Your task to perform on an android device: toggle translation in the chrome app Image 0: 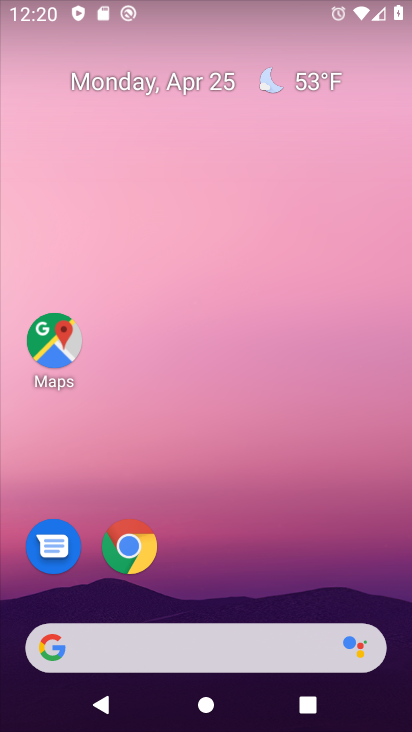
Step 0: click (140, 553)
Your task to perform on an android device: toggle translation in the chrome app Image 1: 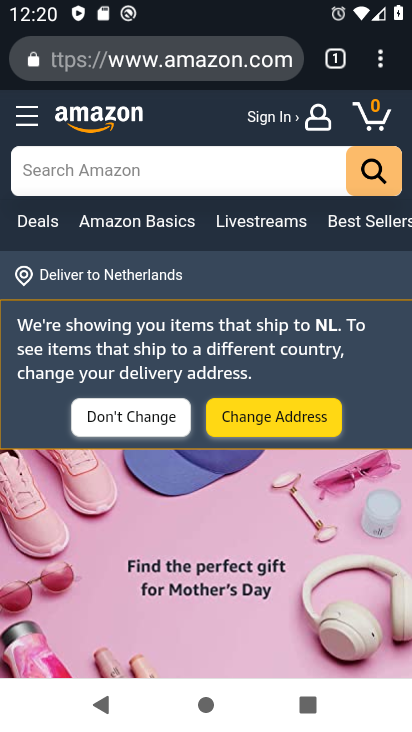
Step 1: click (378, 58)
Your task to perform on an android device: toggle translation in the chrome app Image 2: 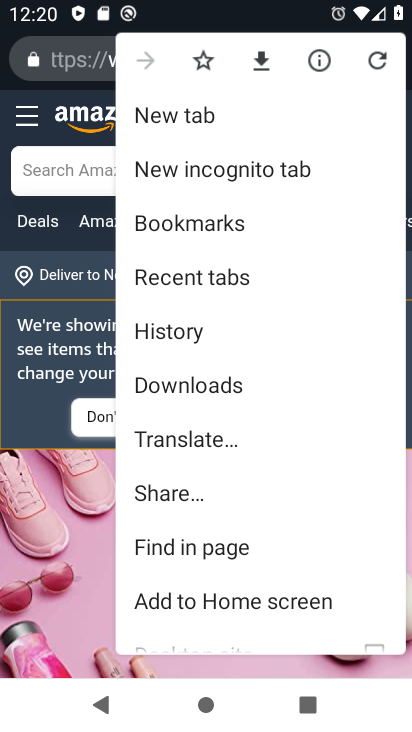
Step 2: drag from (240, 490) to (257, 326)
Your task to perform on an android device: toggle translation in the chrome app Image 3: 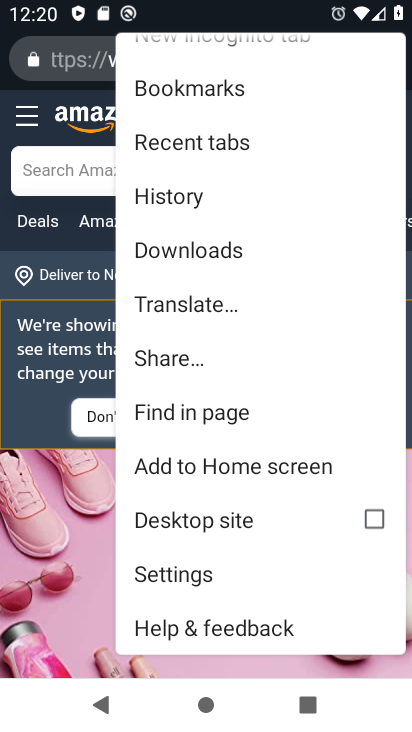
Step 3: click (187, 564)
Your task to perform on an android device: toggle translation in the chrome app Image 4: 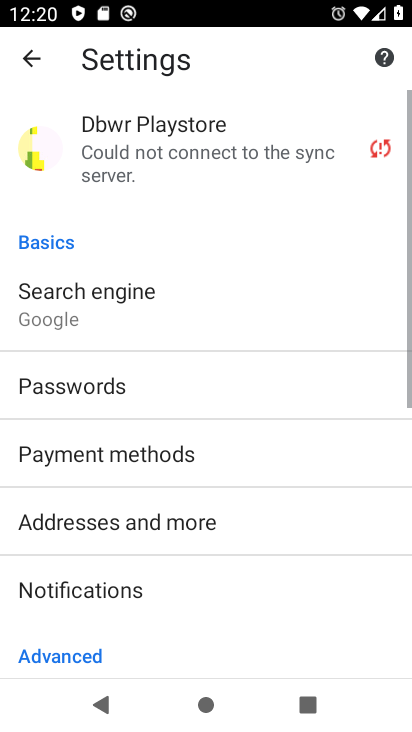
Step 4: drag from (218, 603) to (261, 355)
Your task to perform on an android device: toggle translation in the chrome app Image 5: 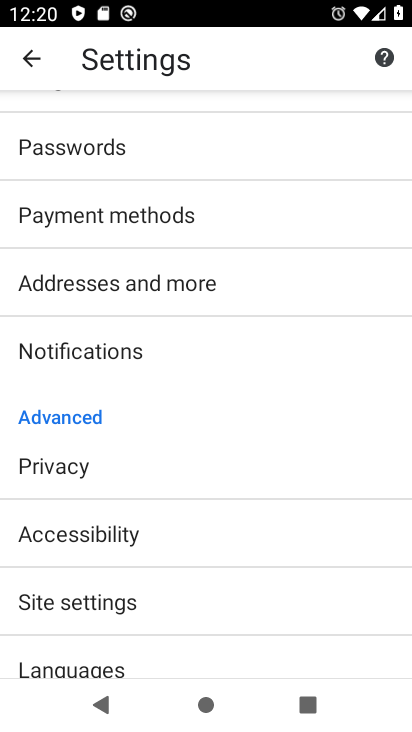
Step 5: click (120, 657)
Your task to perform on an android device: toggle translation in the chrome app Image 6: 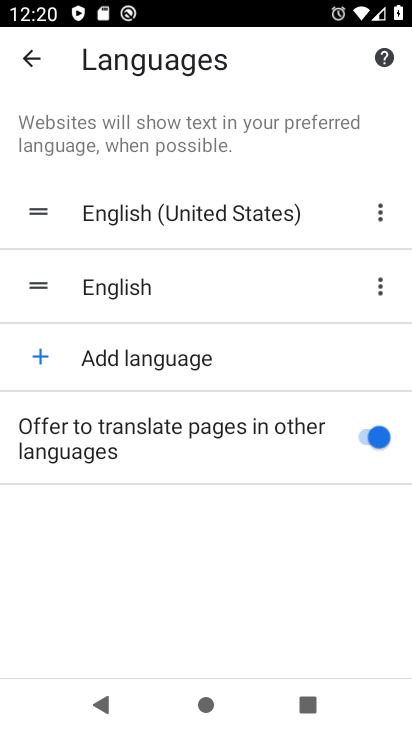
Step 6: click (366, 428)
Your task to perform on an android device: toggle translation in the chrome app Image 7: 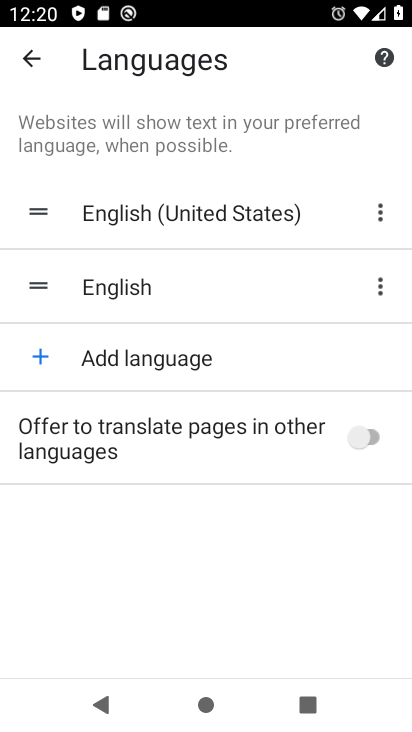
Step 7: task complete